Your task to perform on an android device: read, delete, or share a saved page in the chrome app Image 0: 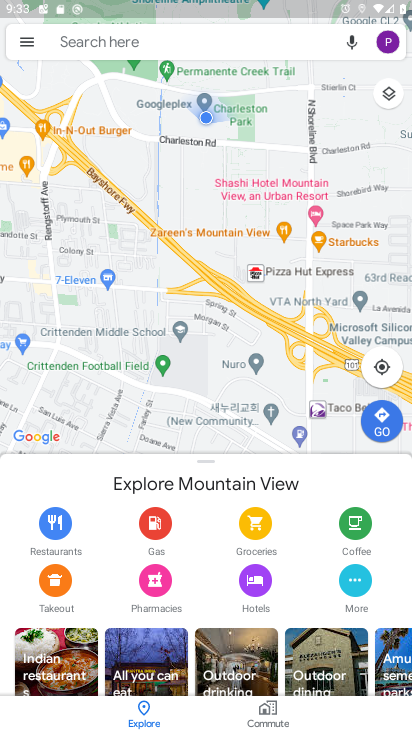
Step 0: press home button
Your task to perform on an android device: read, delete, or share a saved page in the chrome app Image 1: 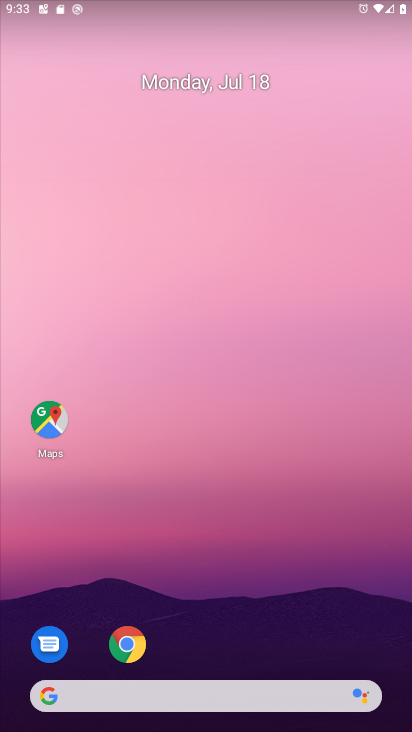
Step 1: drag from (206, 649) to (243, 214)
Your task to perform on an android device: read, delete, or share a saved page in the chrome app Image 2: 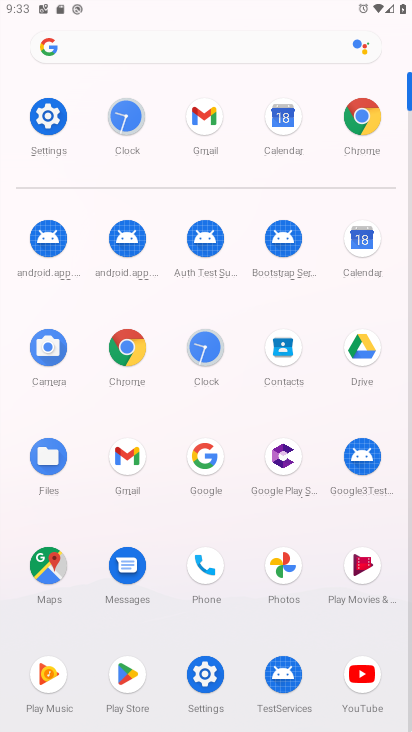
Step 2: click (60, 122)
Your task to perform on an android device: read, delete, or share a saved page in the chrome app Image 3: 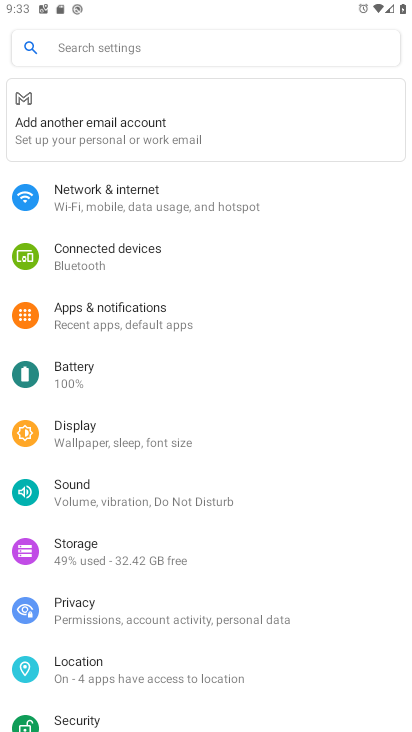
Step 3: task complete